Your task to perform on an android device: change keyboard looks Image 0: 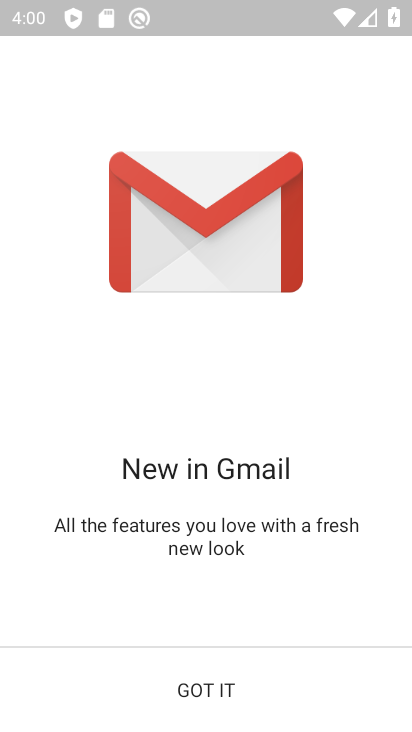
Step 0: press home button
Your task to perform on an android device: change keyboard looks Image 1: 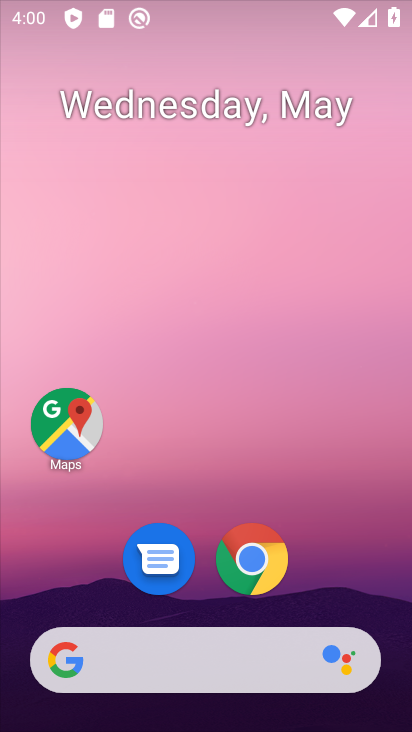
Step 1: drag from (321, 560) to (258, 63)
Your task to perform on an android device: change keyboard looks Image 2: 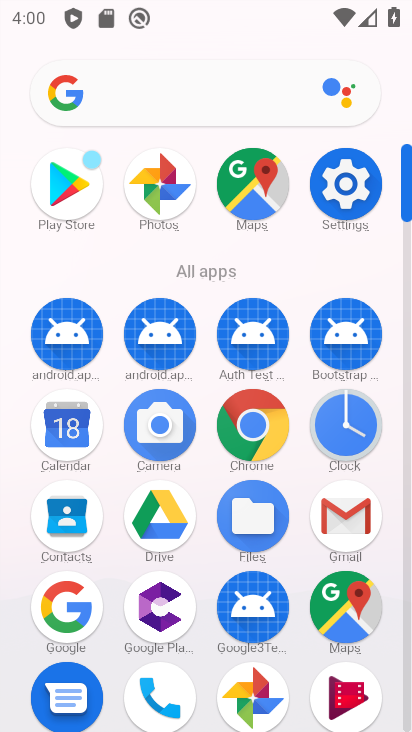
Step 2: click (350, 197)
Your task to perform on an android device: change keyboard looks Image 3: 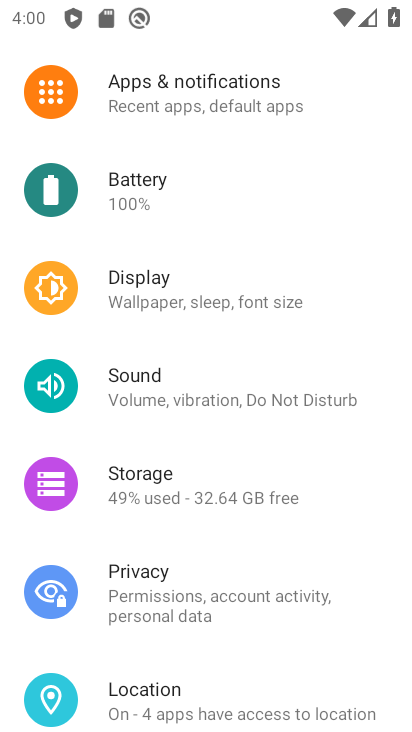
Step 3: drag from (200, 641) to (204, 155)
Your task to perform on an android device: change keyboard looks Image 4: 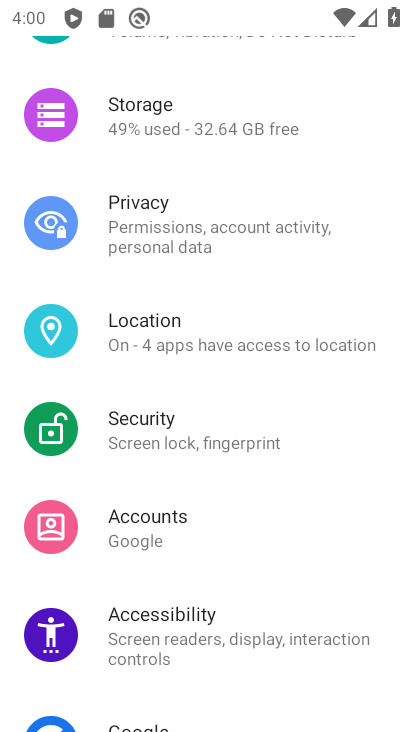
Step 4: drag from (237, 594) to (219, 203)
Your task to perform on an android device: change keyboard looks Image 5: 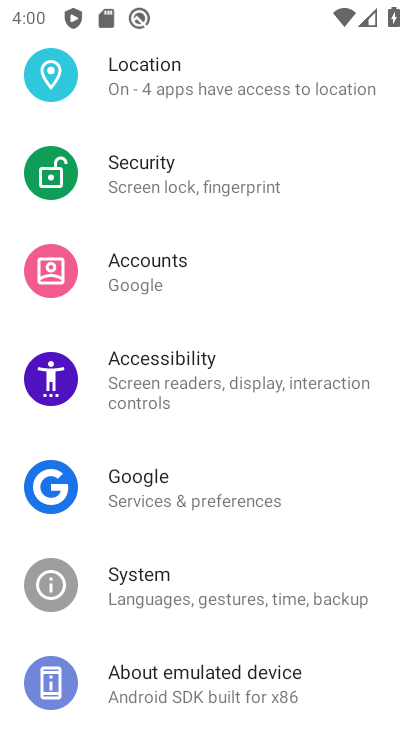
Step 5: click (211, 601)
Your task to perform on an android device: change keyboard looks Image 6: 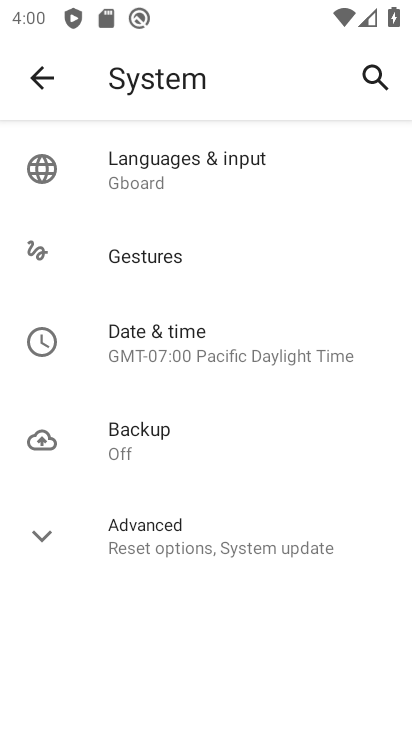
Step 6: click (215, 166)
Your task to perform on an android device: change keyboard looks Image 7: 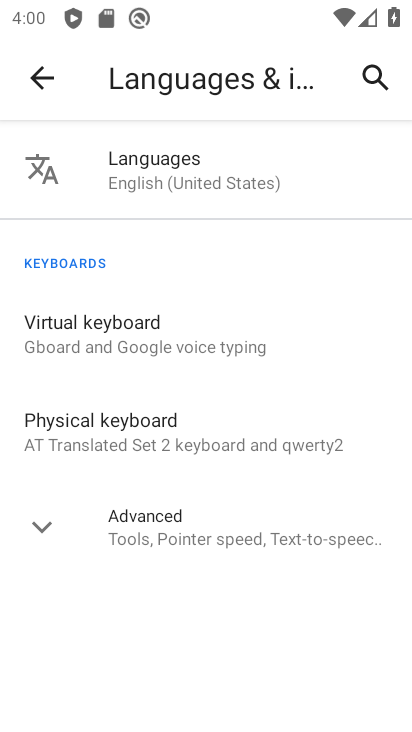
Step 7: click (162, 338)
Your task to perform on an android device: change keyboard looks Image 8: 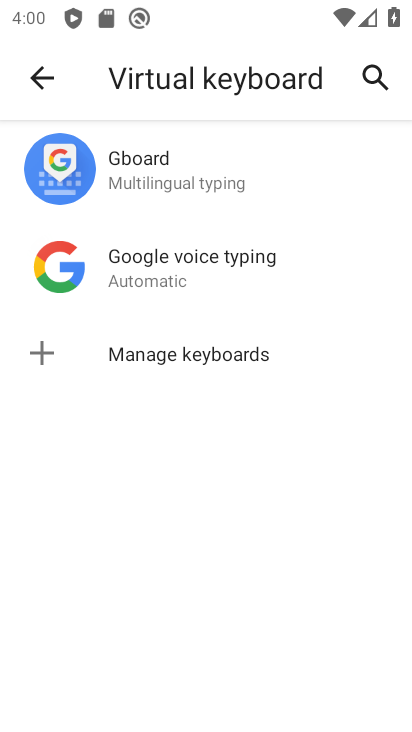
Step 8: click (164, 159)
Your task to perform on an android device: change keyboard looks Image 9: 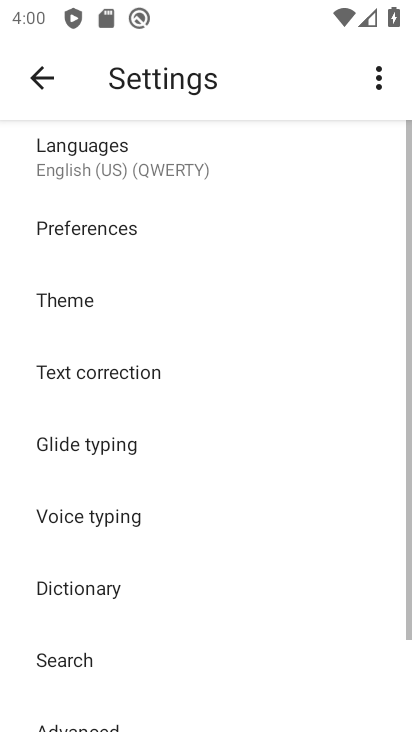
Step 9: click (135, 294)
Your task to perform on an android device: change keyboard looks Image 10: 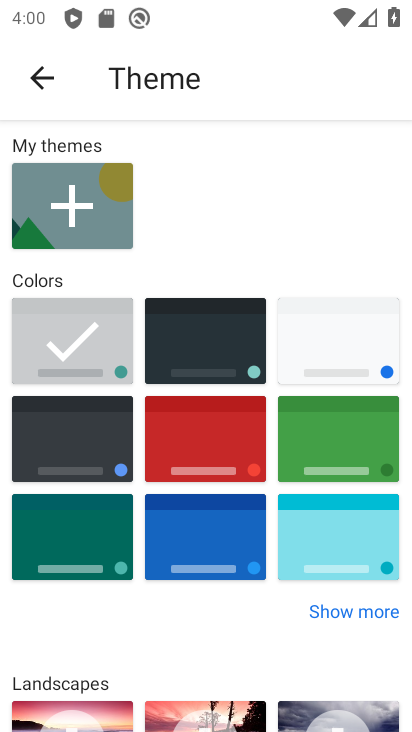
Step 10: click (200, 333)
Your task to perform on an android device: change keyboard looks Image 11: 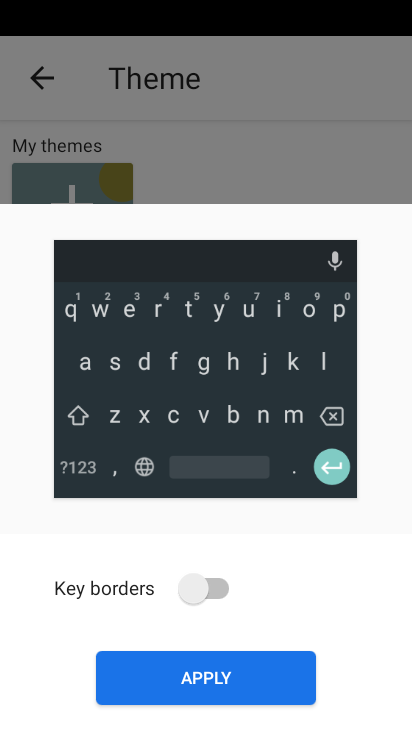
Step 11: click (248, 661)
Your task to perform on an android device: change keyboard looks Image 12: 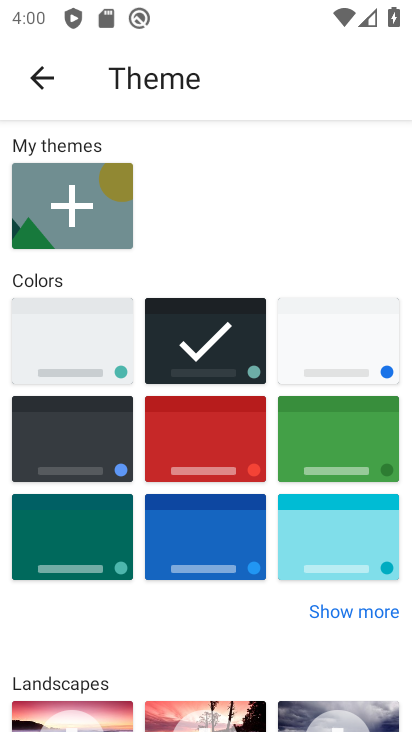
Step 12: task complete